Your task to perform on an android device: Go to battery settings Image 0: 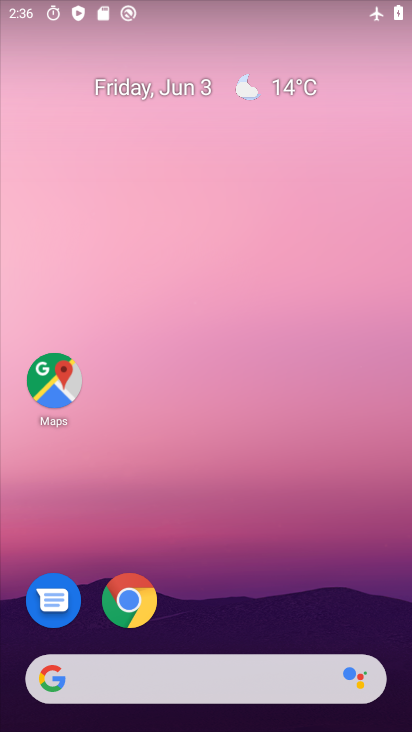
Step 0: drag from (301, 497) to (255, 0)
Your task to perform on an android device: Go to battery settings Image 1: 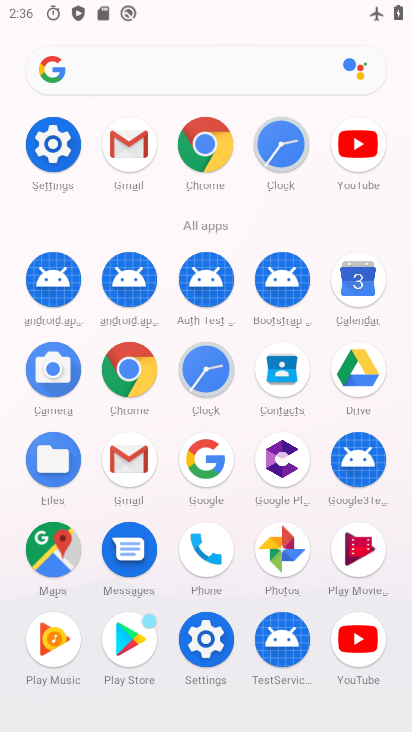
Step 1: click (204, 636)
Your task to perform on an android device: Go to battery settings Image 2: 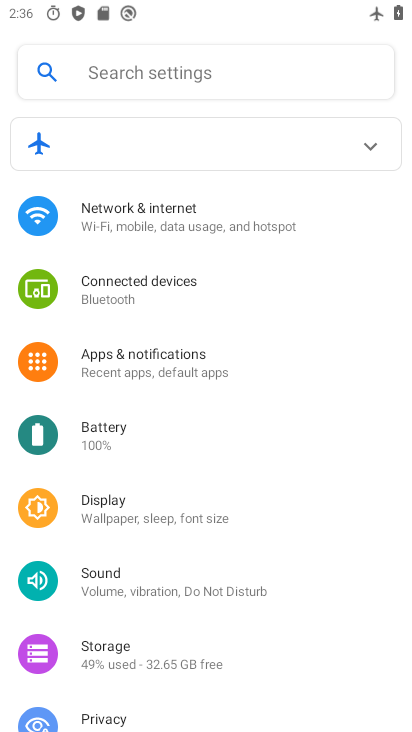
Step 2: drag from (295, 539) to (294, 149)
Your task to perform on an android device: Go to battery settings Image 3: 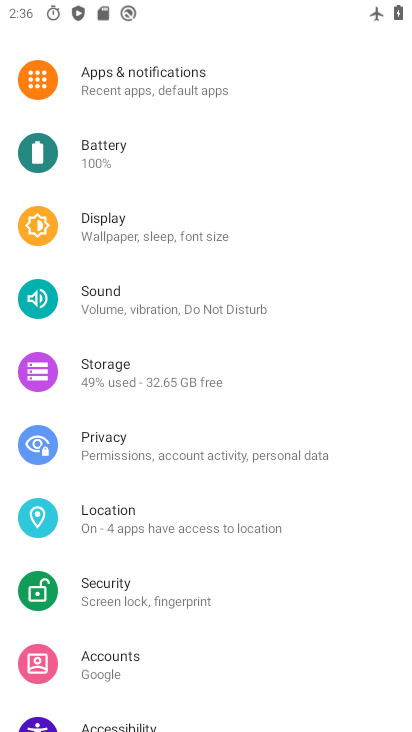
Step 3: click (156, 143)
Your task to perform on an android device: Go to battery settings Image 4: 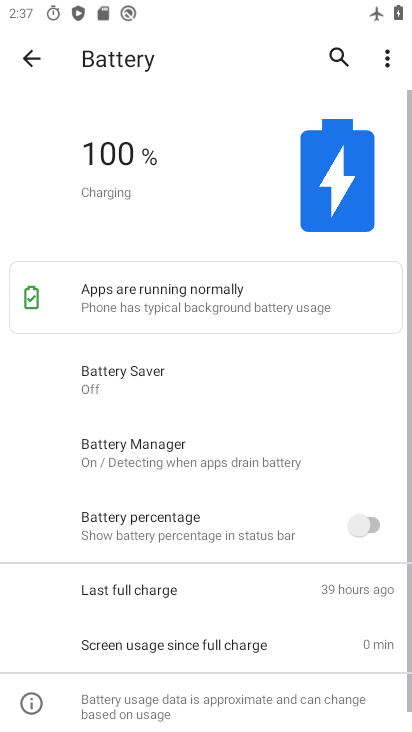
Step 4: task complete